Your task to perform on an android device: uninstall "Gmail" Image 0: 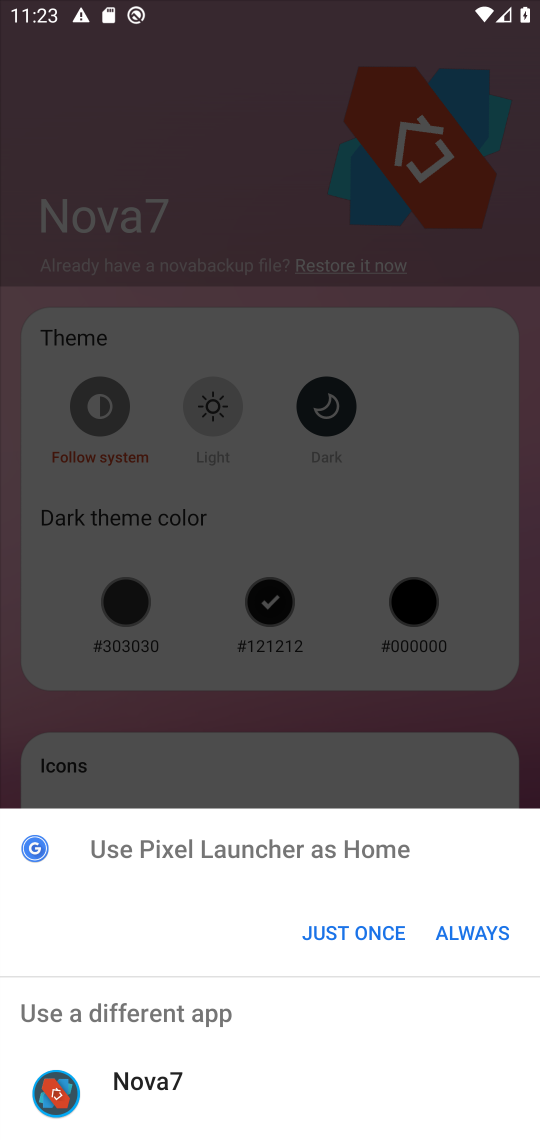
Step 0: press home button
Your task to perform on an android device: uninstall "Gmail" Image 1: 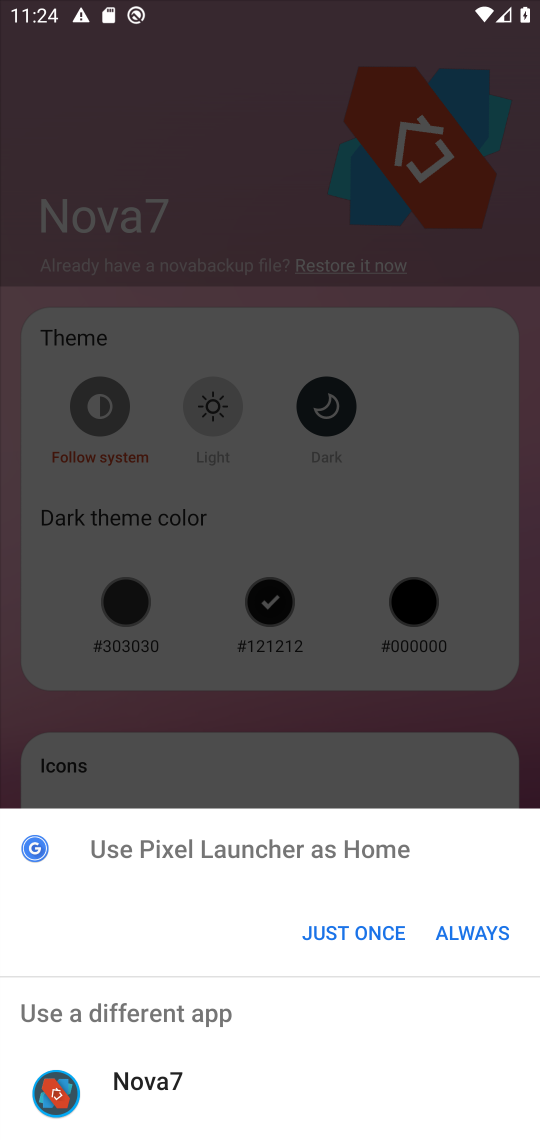
Step 1: press home button
Your task to perform on an android device: uninstall "Gmail" Image 2: 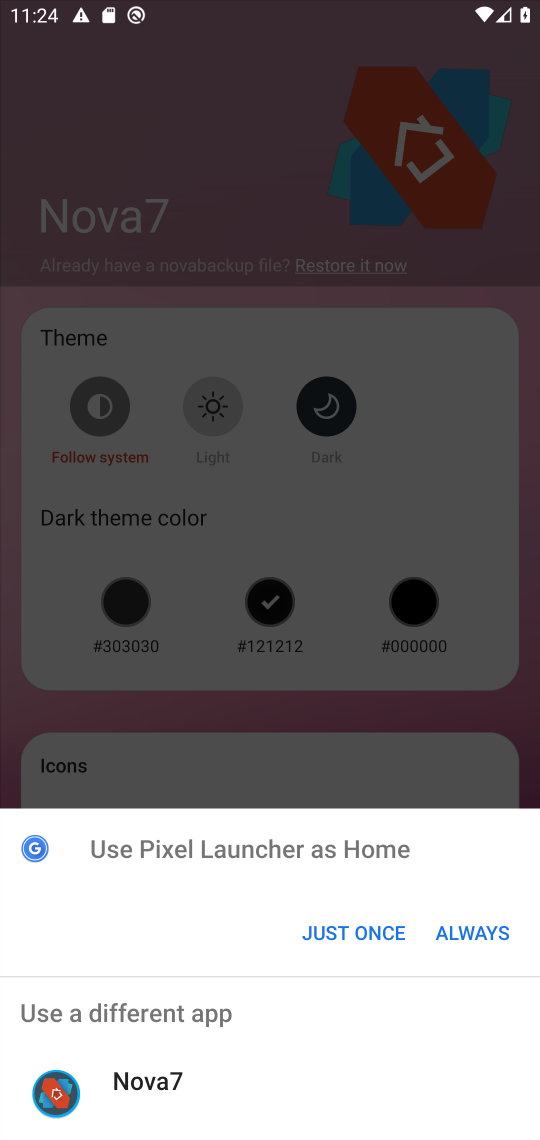
Step 2: press home button
Your task to perform on an android device: uninstall "Gmail" Image 3: 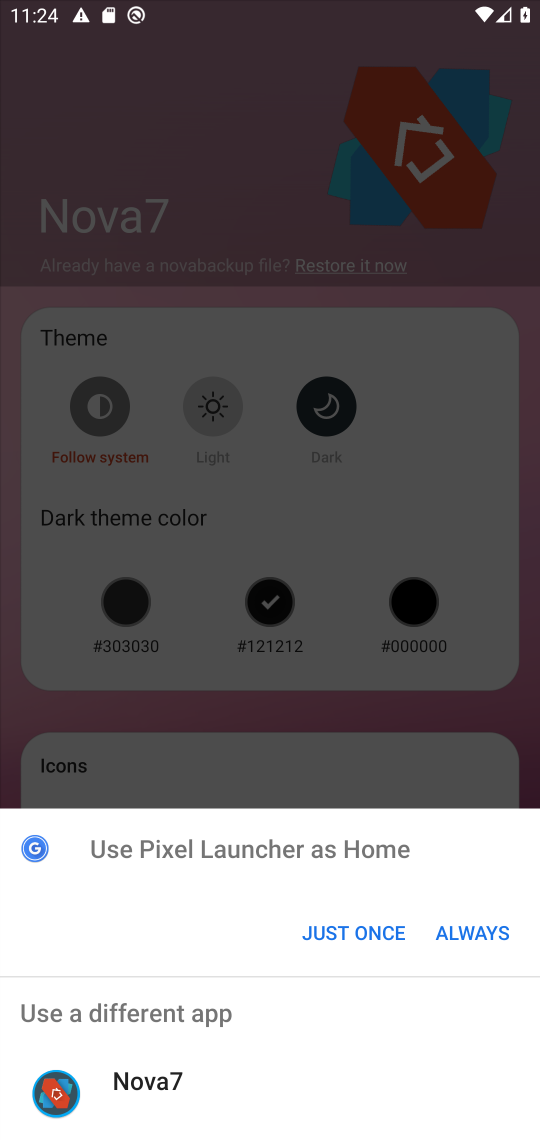
Step 3: press home button
Your task to perform on an android device: uninstall "Gmail" Image 4: 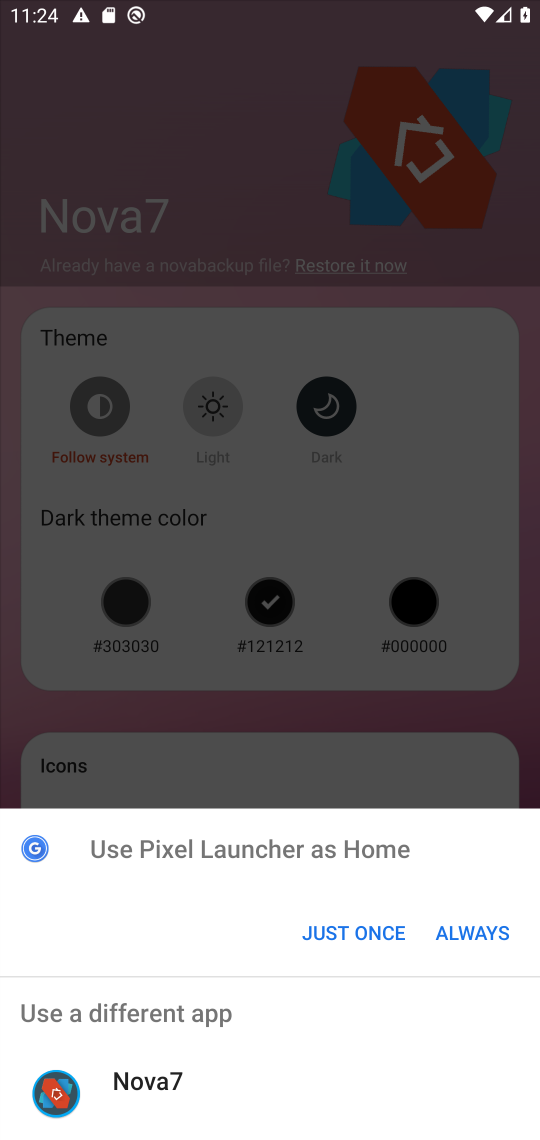
Step 4: press home button
Your task to perform on an android device: uninstall "Gmail" Image 5: 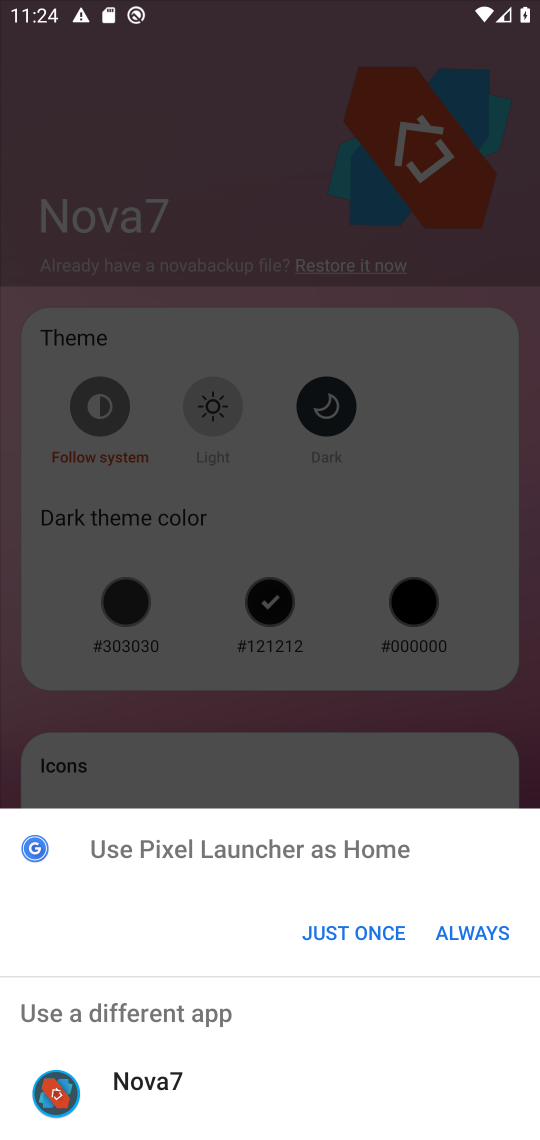
Step 5: press back button
Your task to perform on an android device: uninstall "Gmail" Image 6: 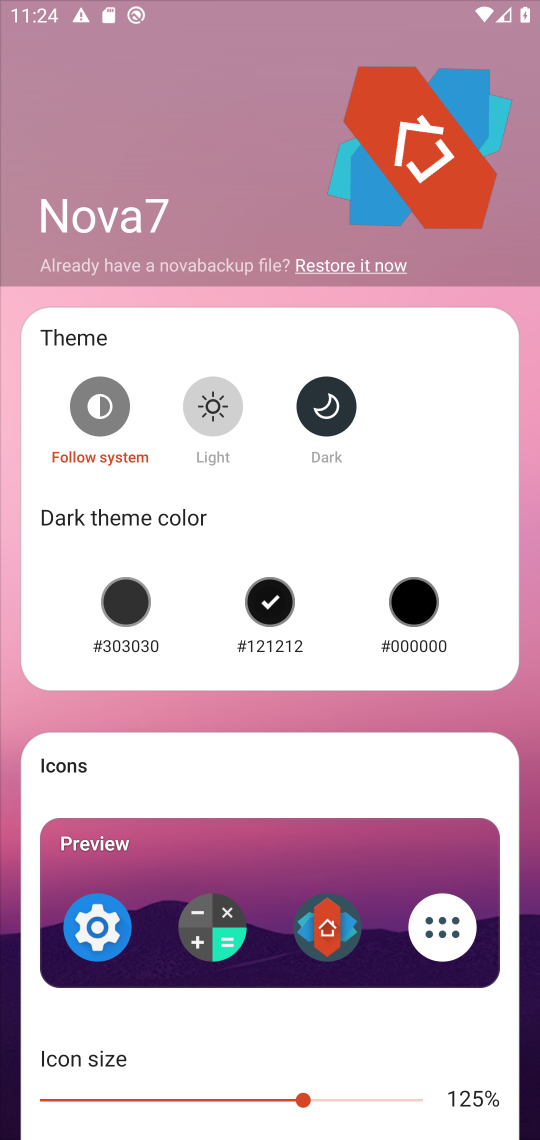
Step 6: press back button
Your task to perform on an android device: uninstall "Gmail" Image 7: 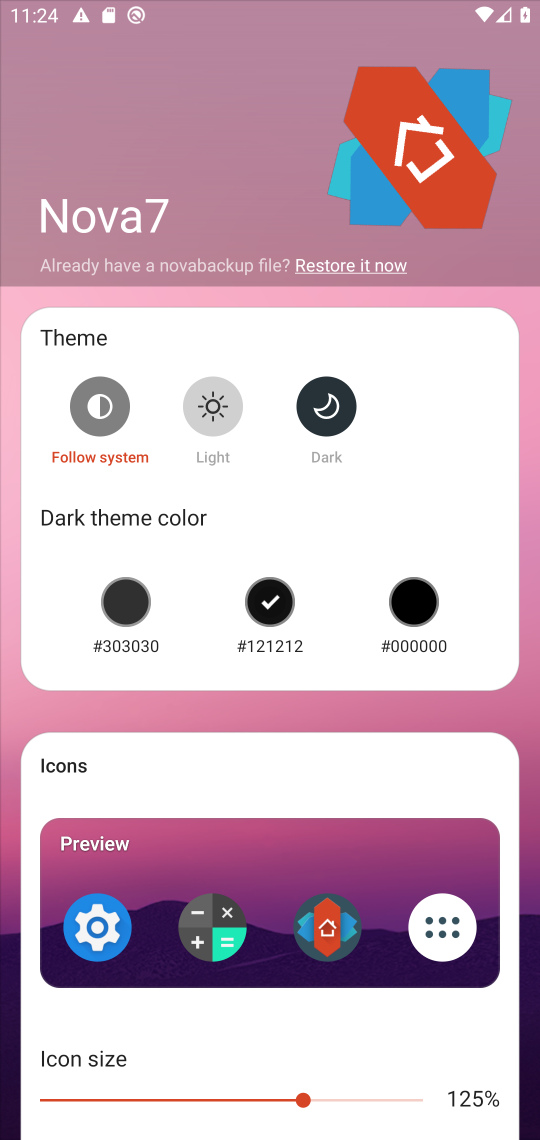
Step 7: press home button
Your task to perform on an android device: uninstall "Gmail" Image 8: 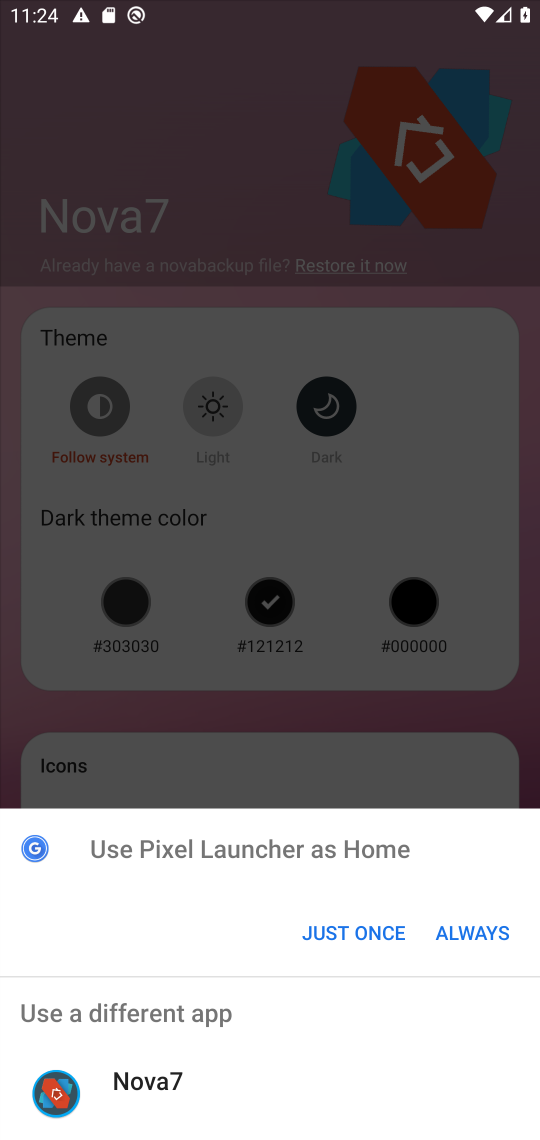
Step 8: click (477, 935)
Your task to perform on an android device: uninstall "Gmail" Image 9: 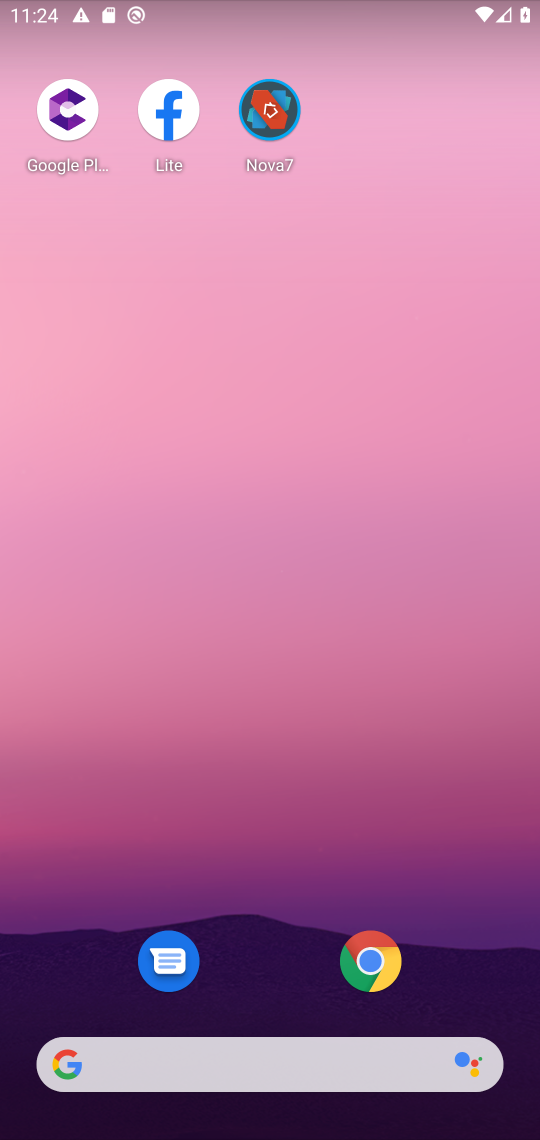
Step 9: drag from (451, 894) to (449, 115)
Your task to perform on an android device: uninstall "Gmail" Image 10: 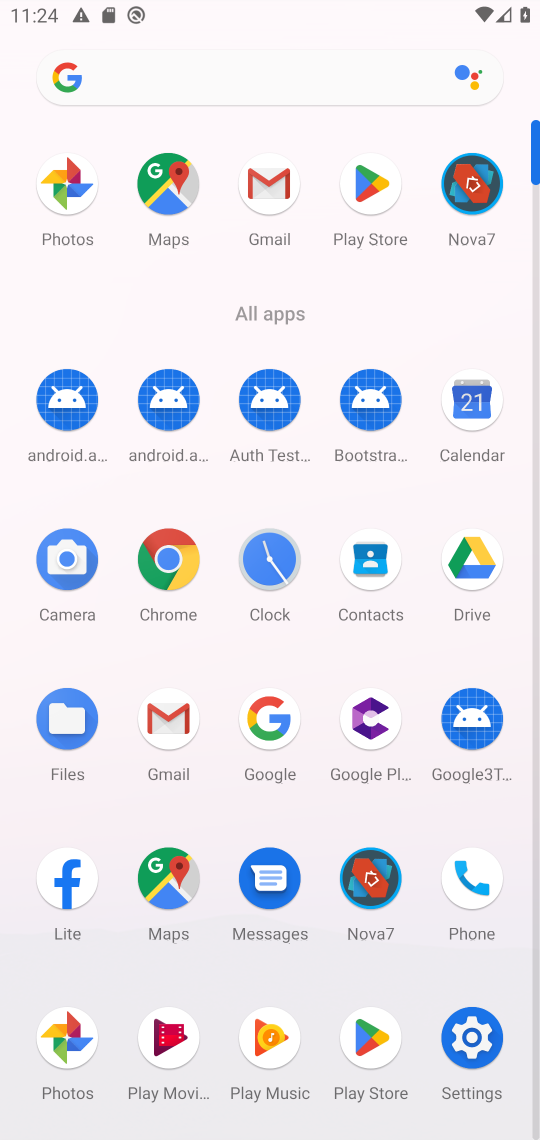
Step 10: click (272, 182)
Your task to perform on an android device: uninstall "Gmail" Image 11: 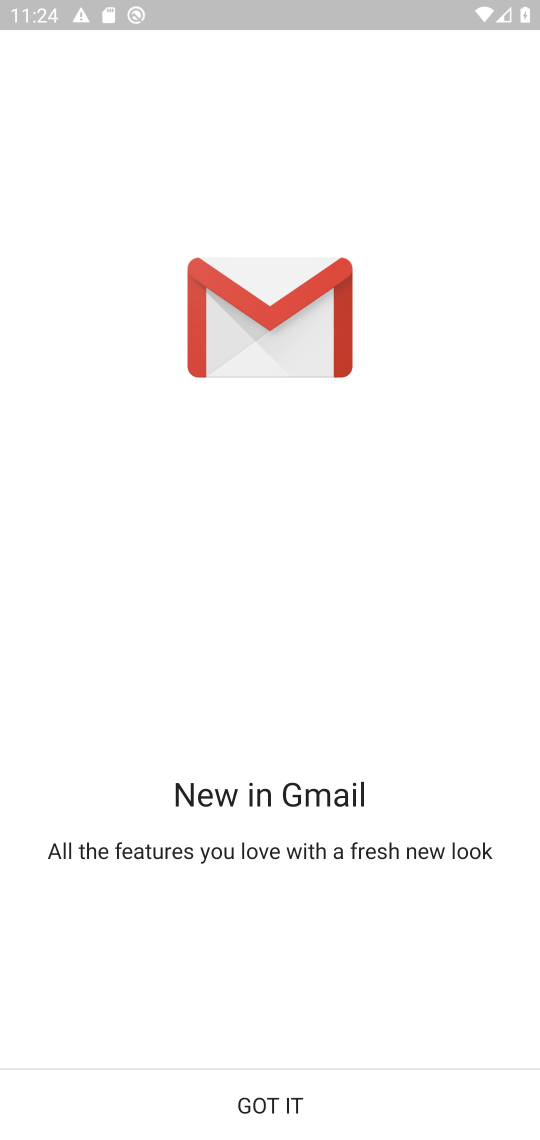
Step 11: press back button
Your task to perform on an android device: uninstall "Gmail" Image 12: 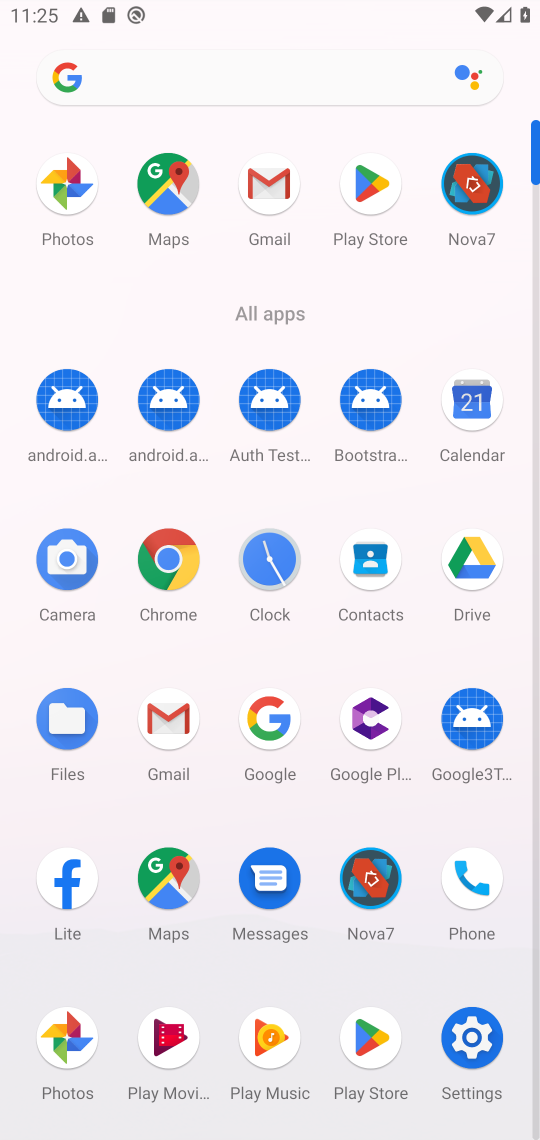
Step 12: click (368, 198)
Your task to perform on an android device: uninstall "Gmail" Image 13: 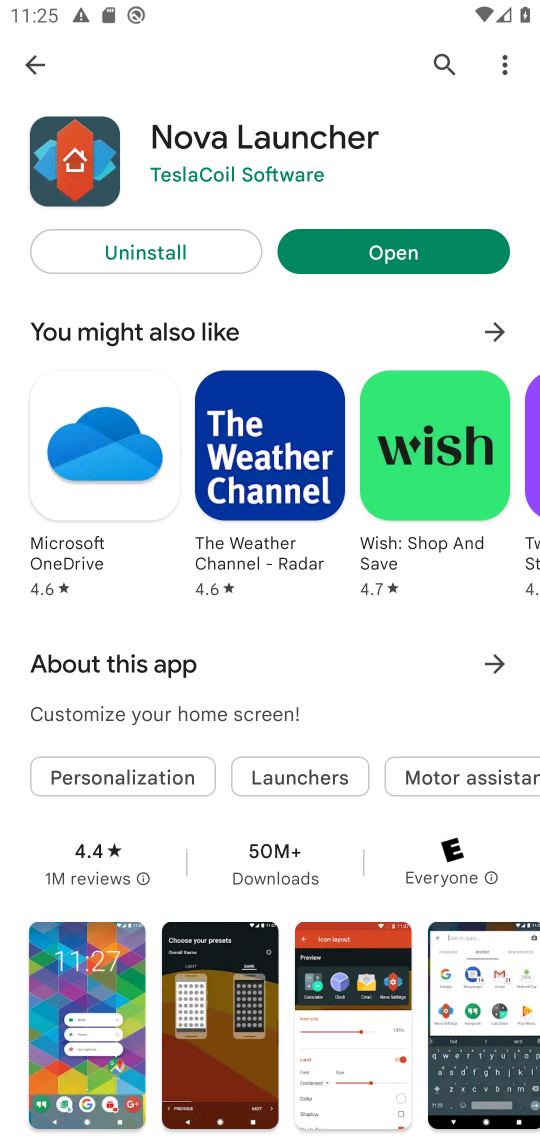
Step 13: press back button
Your task to perform on an android device: uninstall "Gmail" Image 14: 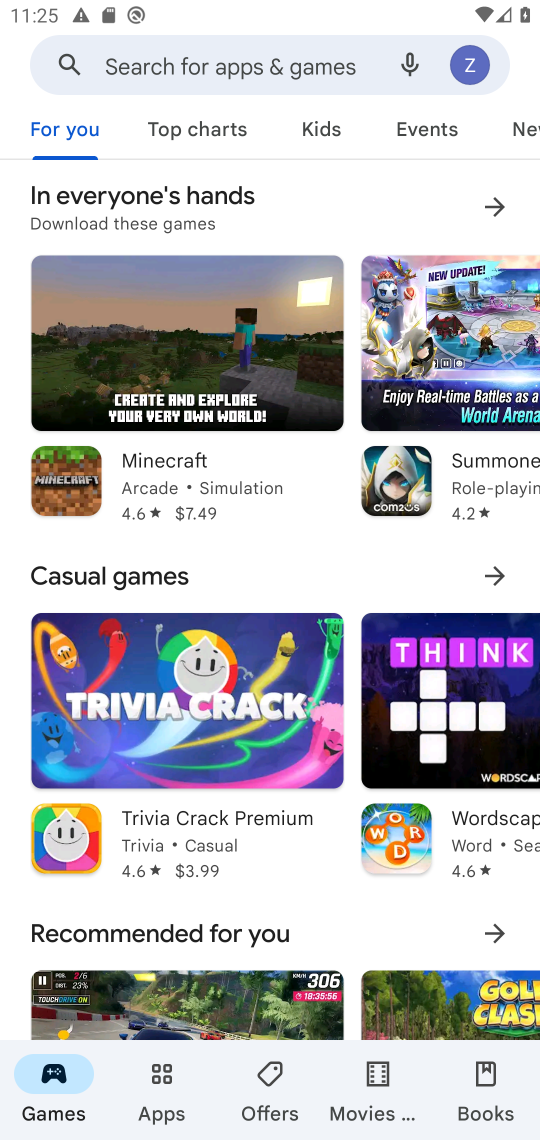
Step 14: click (226, 65)
Your task to perform on an android device: uninstall "Gmail" Image 15: 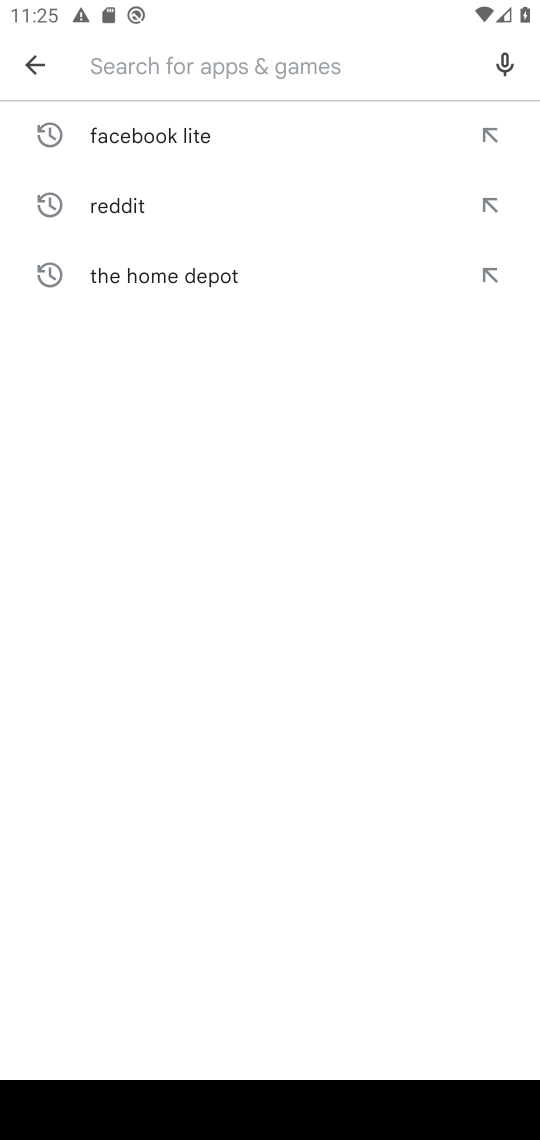
Step 15: type "gmail"
Your task to perform on an android device: uninstall "Gmail" Image 16: 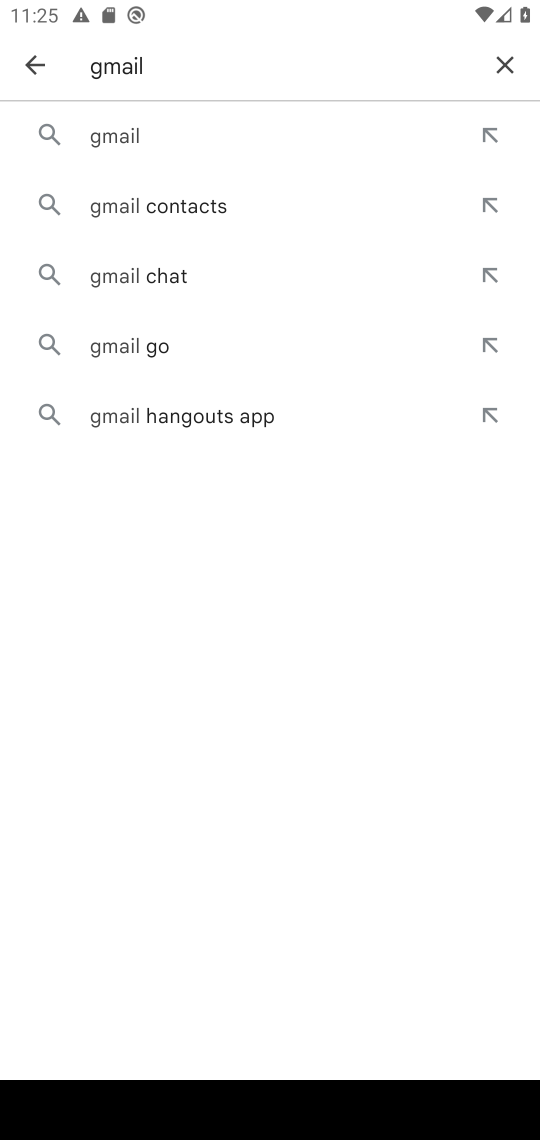
Step 16: click (154, 148)
Your task to perform on an android device: uninstall "Gmail" Image 17: 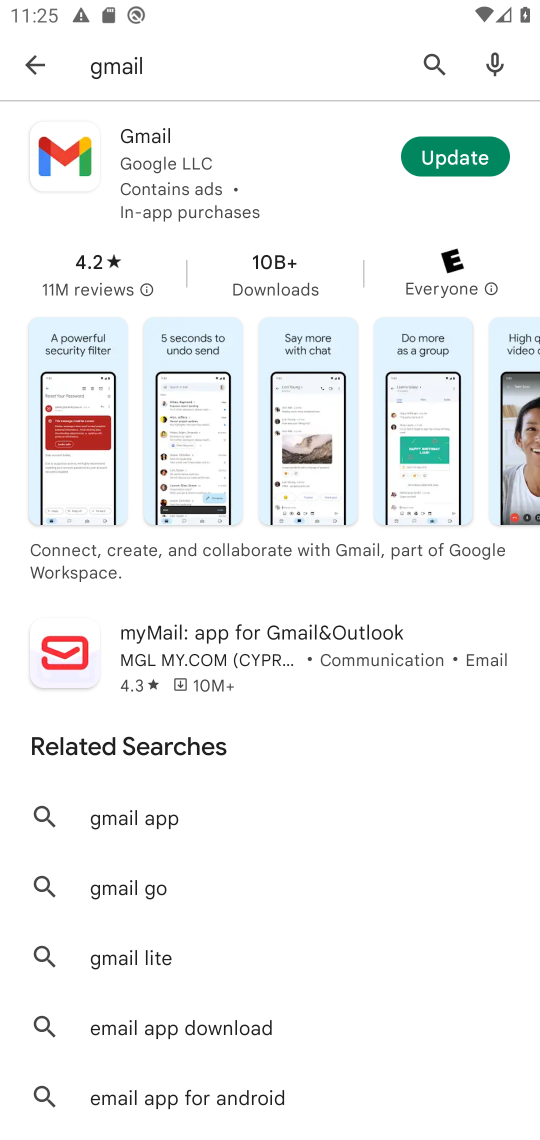
Step 17: task complete